Your task to perform on an android device: Go to internet settings Image 0: 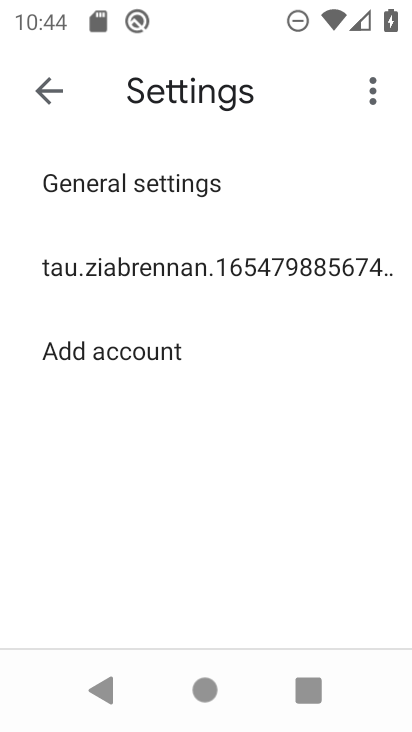
Step 0: press home button
Your task to perform on an android device: Go to internet settings Image 1: 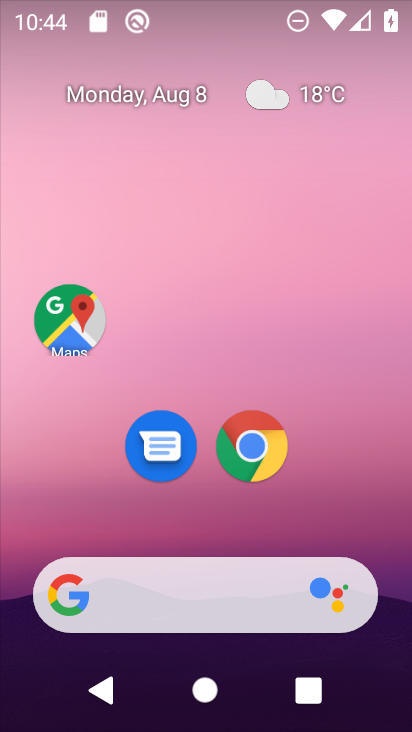
Step 1: drag from (400, 611) to (362, 153)
Your task to perform on an android device: Go to internet settings Image 2: 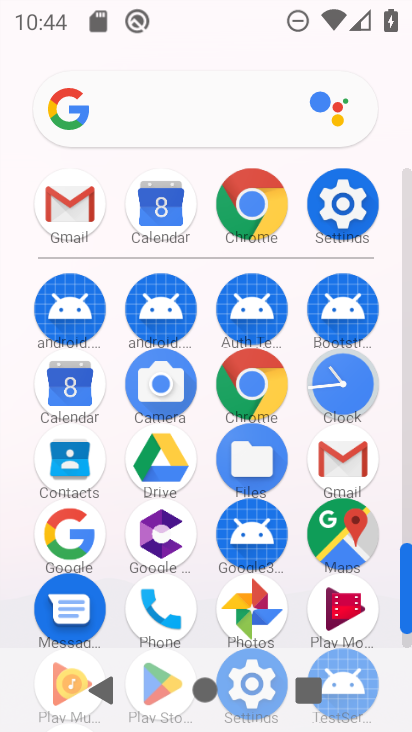
Step 2: click (405, 643)
Your task to perform on an android device: Go to internet settings Image 3: 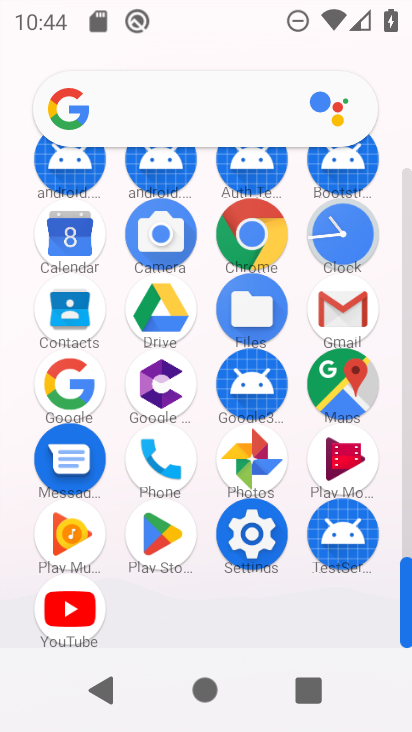
Step 3: click (252, 535)
Your task to perform on an android device: Go to internet settings Image 4: 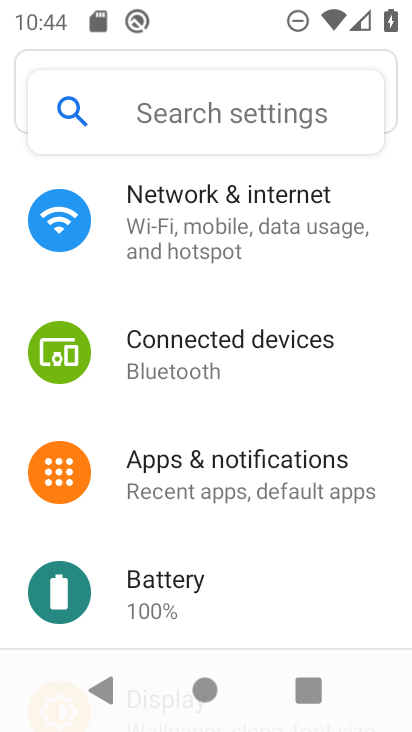
Step 4: click (182, 203)
Your task to perform on an android device: Go to internet settings Image 5: 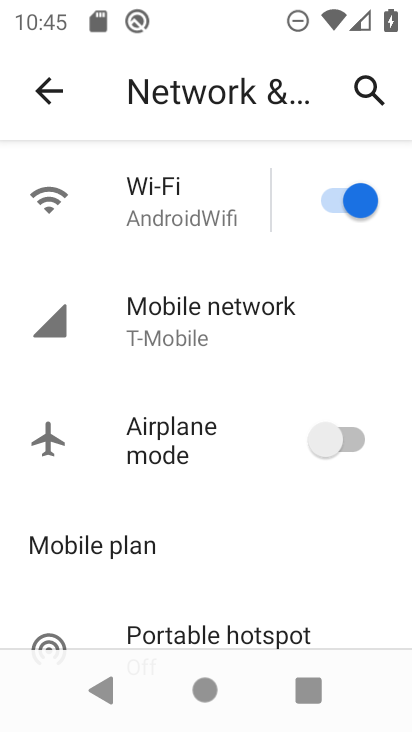
Step 5: click (172, 319)
Your task to perform on an android device: Go to internet settings Image 6: 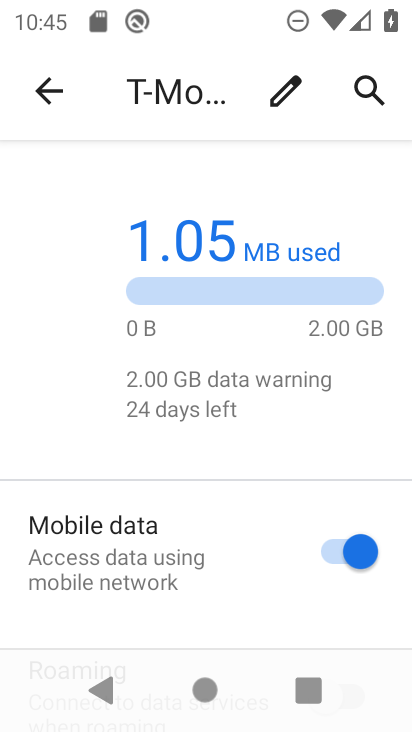
Step 6: task complete